Your task to perform on an android device: What's the weather? Image 0: 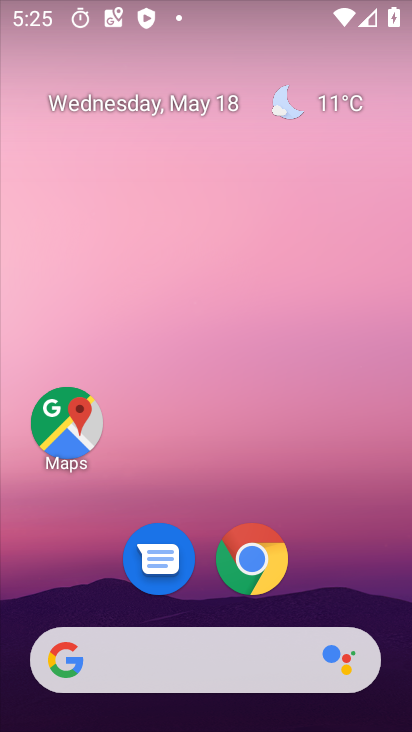
Step 0: click (284, 95)
Your task to perform on an android device: What's the weather? Image 1: 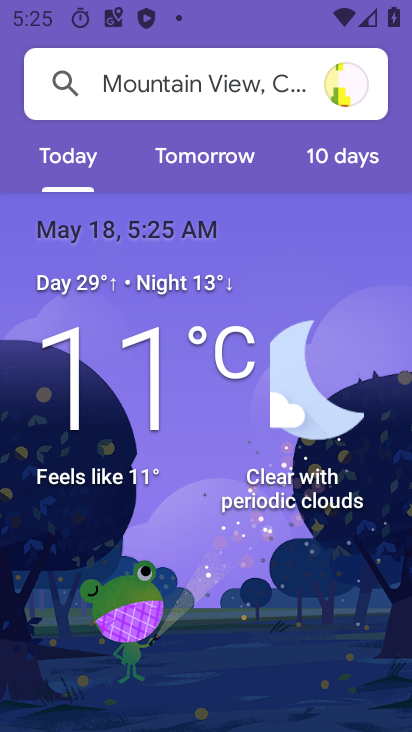
Step 1: task complete